Your task to perform on an android device: Show me recent news Image 0: 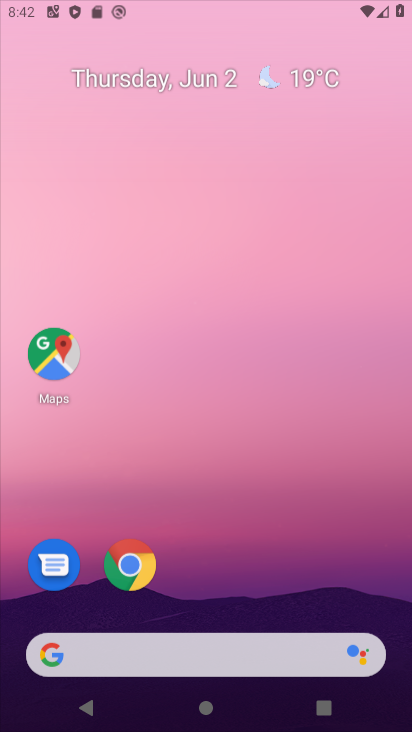
Step 0: click (296, 85)
Your task to perform on an android device: Show me recent news Image 1: 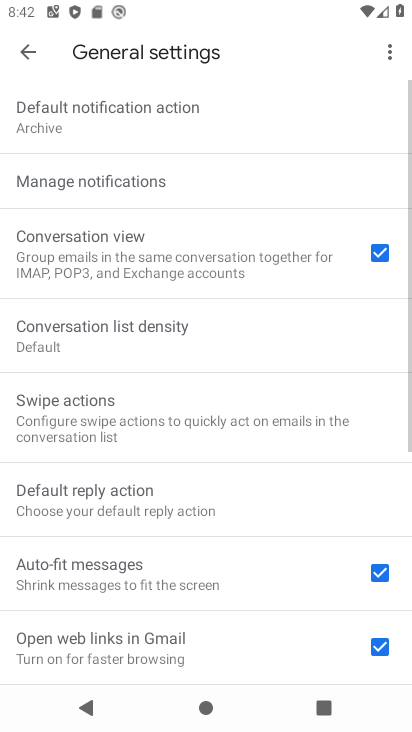
Step 1: press home button
Your task to perform on an android device: Show me recent news Image 2: 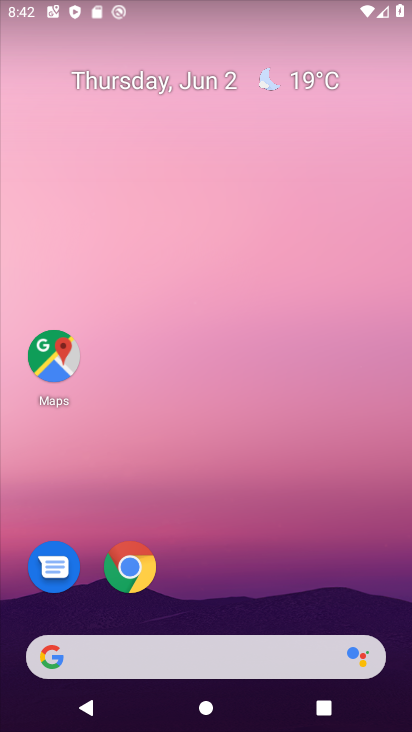
Step 2: click (227, 656)
Your task to perform on an android device: Show me recent news Image 3: 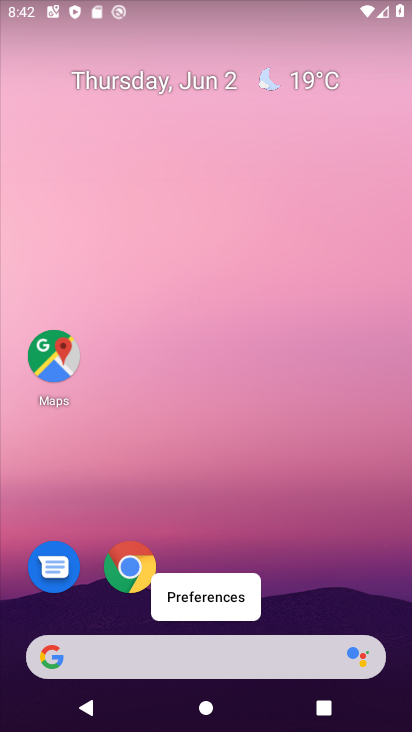
Step 3: click (227, 655)
Your task to perform on an android device: Show me recent news Image 4: 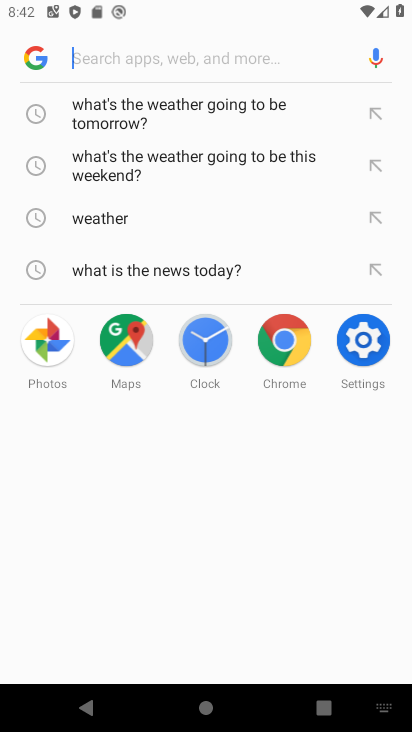
Step 4: type "recent news"
Your task to perform on an android device: Show me recent news Image 5: 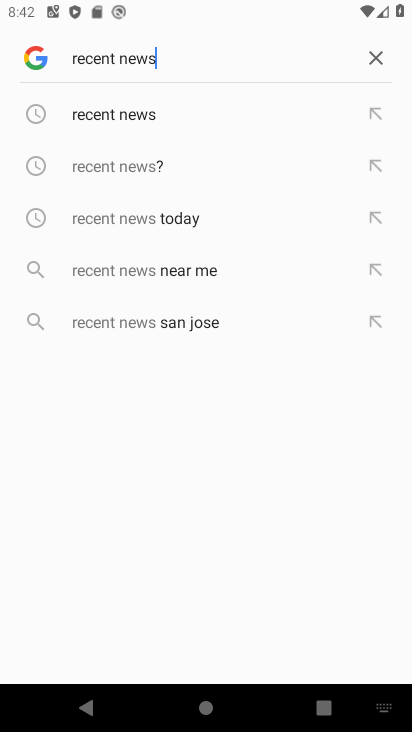
Step 5: click (154, 118)
Your task to perform on an android device: Show me recent news Image 6: 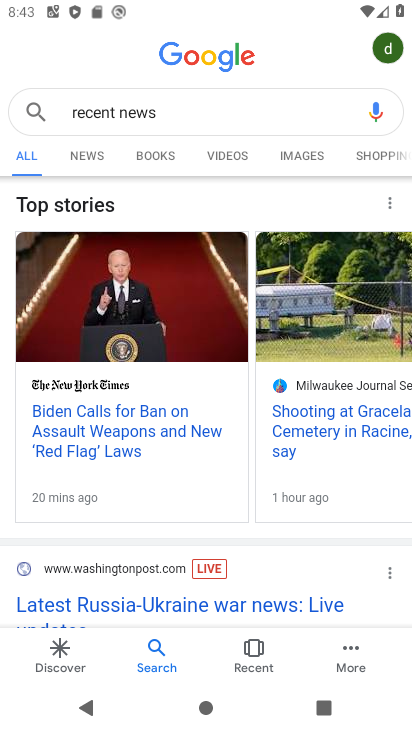
Step 6: task complete